Your task to perform on an android device: Go to battery settings Image 0: 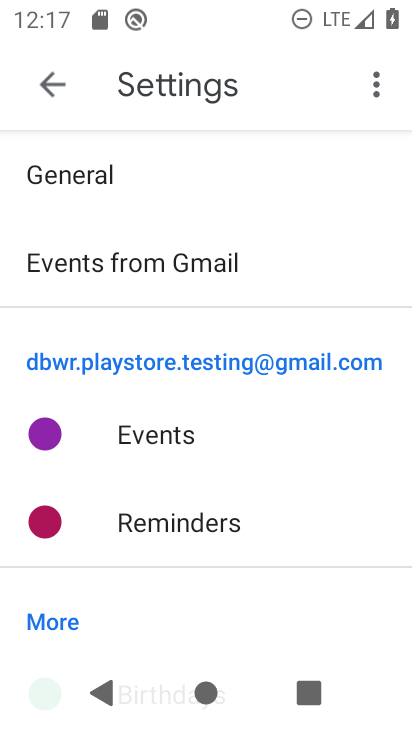
Step 0: press home button
Your task to perform on an android device: Go to battery settings Image 1: 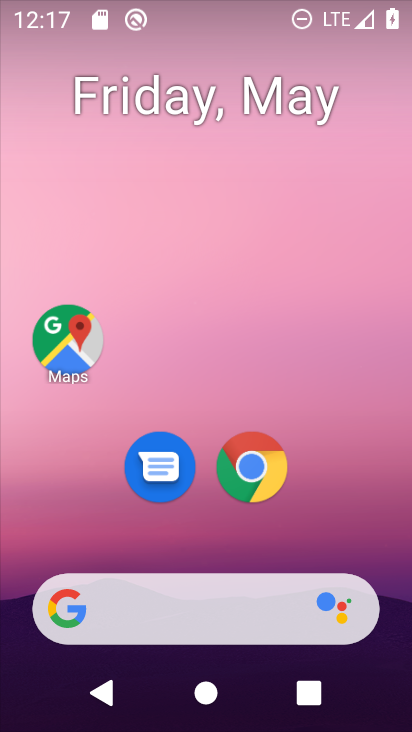
Step 1: drag from (316, 602) to (356, 29)
Your task to perform on an android device: Go to battery settings Image 2: 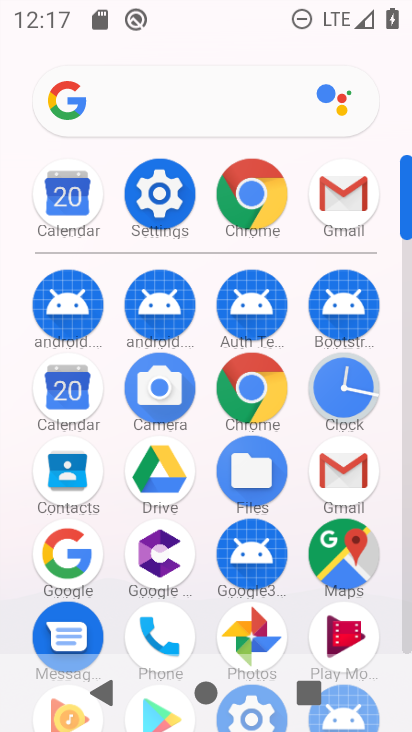
Step 2: click (171, 180)
Your task to perform on an android device: Go to battery settings Image 3: 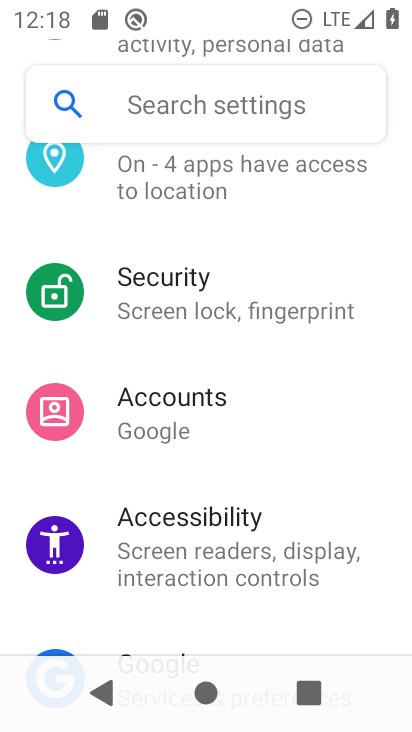
Step 3: drag from (194, 238) to (207, 660)
Your task to perform on an android device: Go to battery settings Image 4: 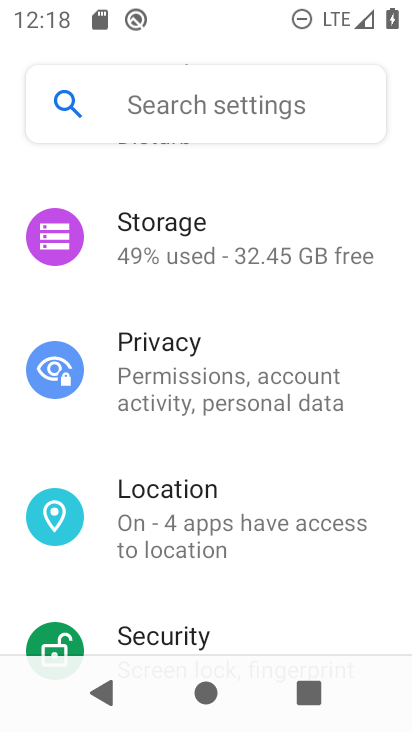
Step 4: drag from (185, 238) to (184, 675)
Your task to perform on an android device: Go to battery settings Image 5: 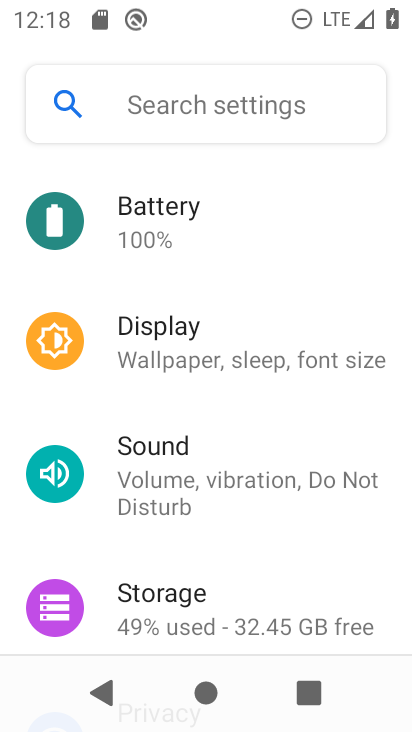
Step 5: click (162, 223)
Your task to perform on an android device: Go to battery settings Image 6: 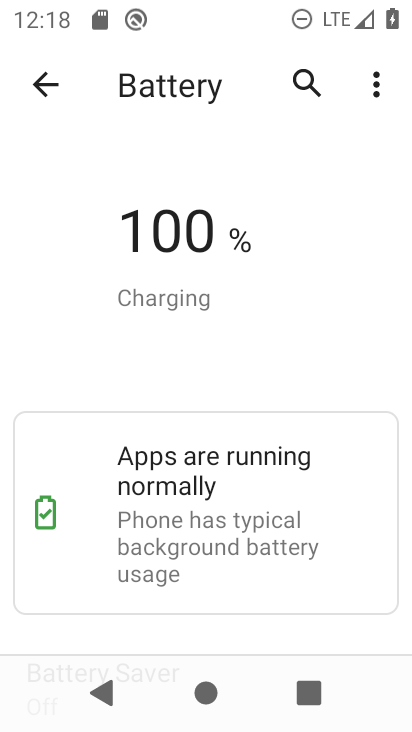
Step 6: task complete